Your task to perform on an android device: change notifications settings Image 0: 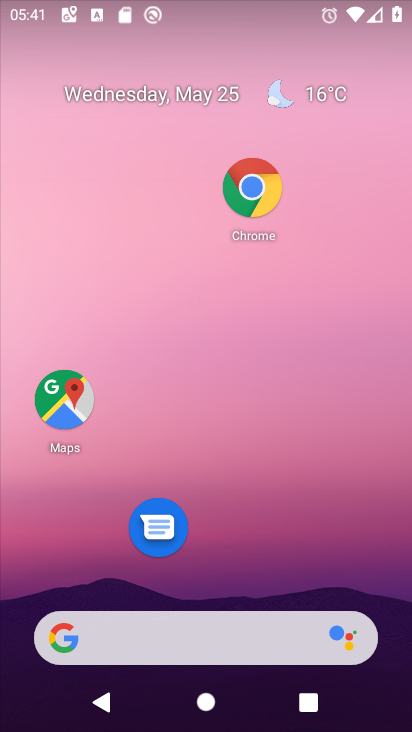
Step 0: drag from (296, 463) to (294, 15)
Your task to perform on an android device: change notifications settings Image 1: 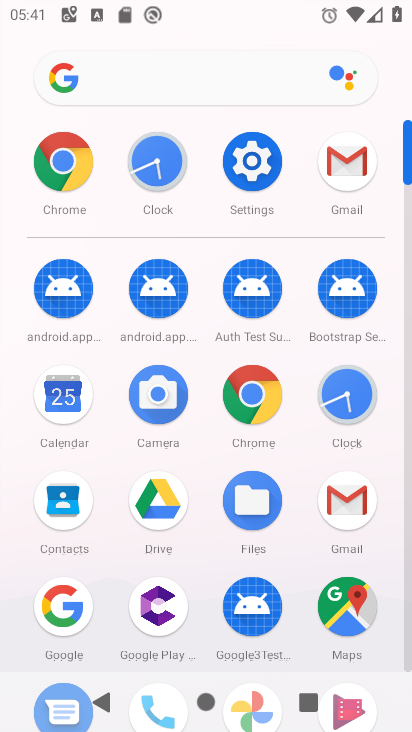
Step 1: click (246, 177)
Your task to perform on an android device: change notifications settings Image 2: 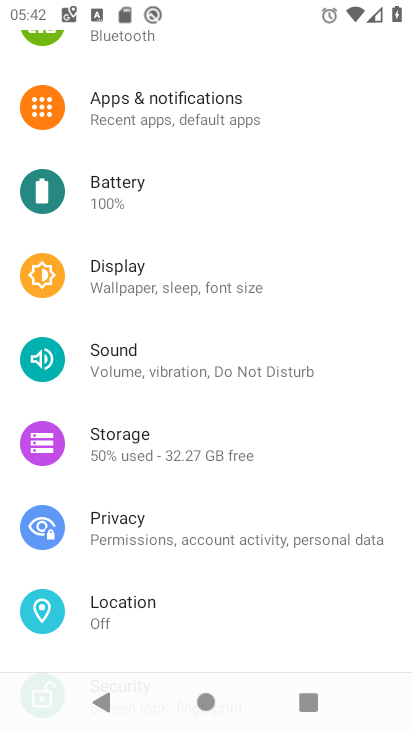
Step 2: click (235, 112)
Your task to perform on an android device: change notifications settings Image 3: 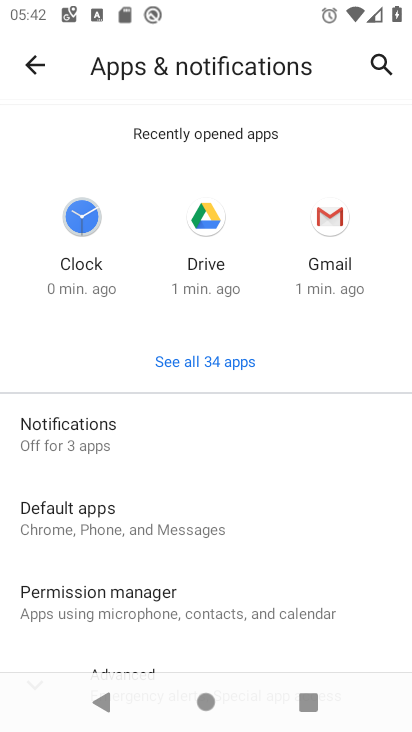
Step 3: drag from (98, 546) to (131, 133)
Your task to perform on an android device: change notifications settings Image 4: 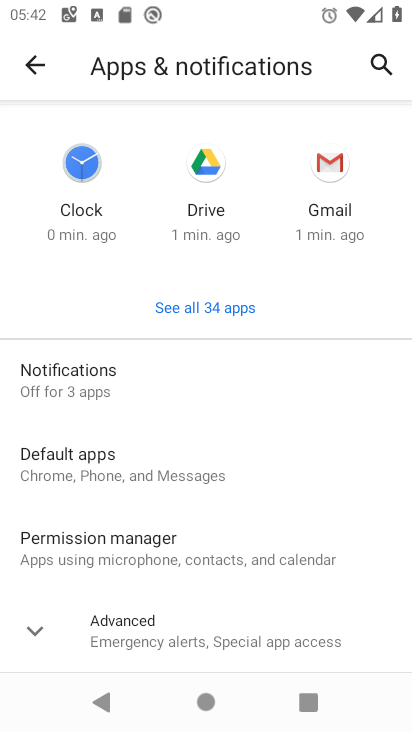
Step 4: click (94, 393)
Your task to perform on an android device: change notifications settings Image 5: 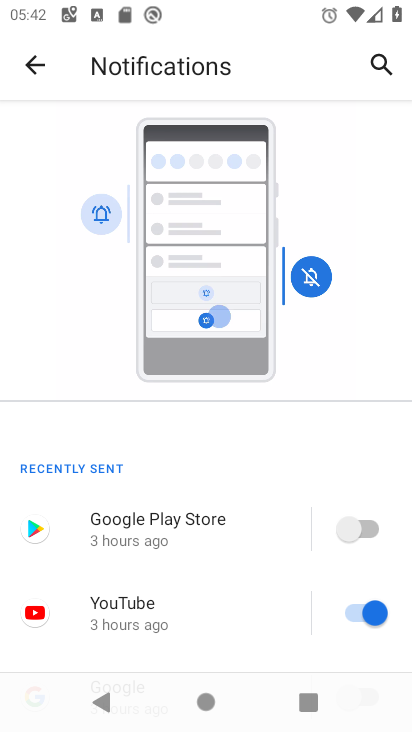
Step 5: click (359, 605)
Your task to perform on an android device: change notifications settings Image 6: 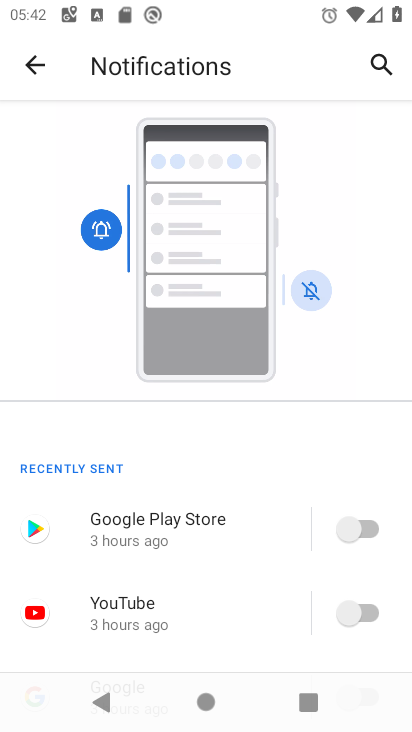
Step 6: task complete